Your task to perform on an android device: move a message to another label in the gmail app Image 0: 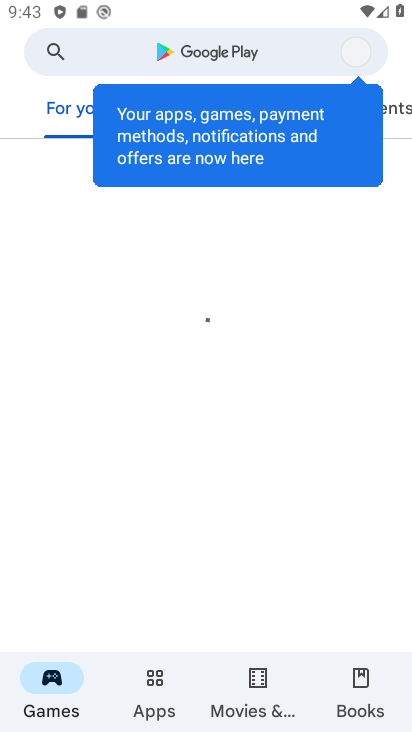
Step 0: press home button
Your task to perform on an android device: move a message to another label in the gmail app Image 1: 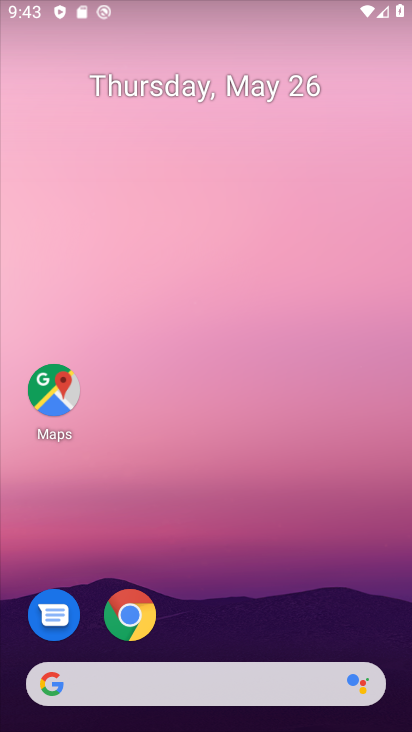
Step 1: drag from (221, 713) to (213, 220)
Your task to perform on an android device: move a message to another label in the gmail app Image 2: 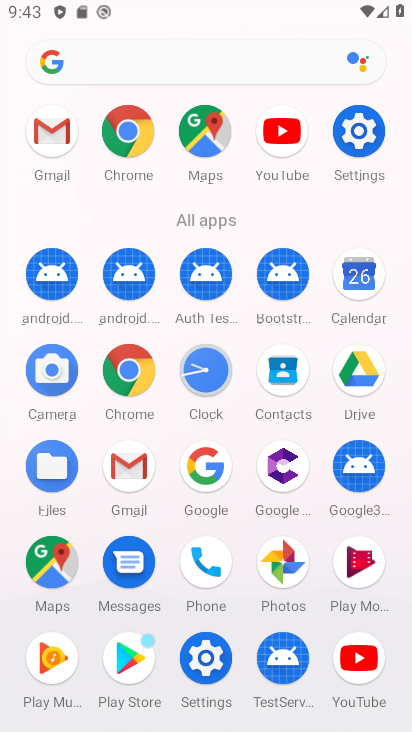
Step 2: click (64, 151)
Your task to perform on an android device: move a message to another label in the gmail app Image 3: 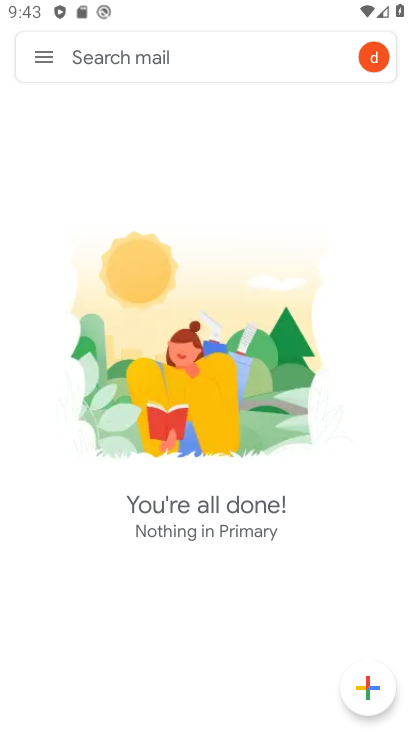
Step 3: click (46, 68)
Your task to perform on an android device: move a message to another label in the gmail app Image 4: 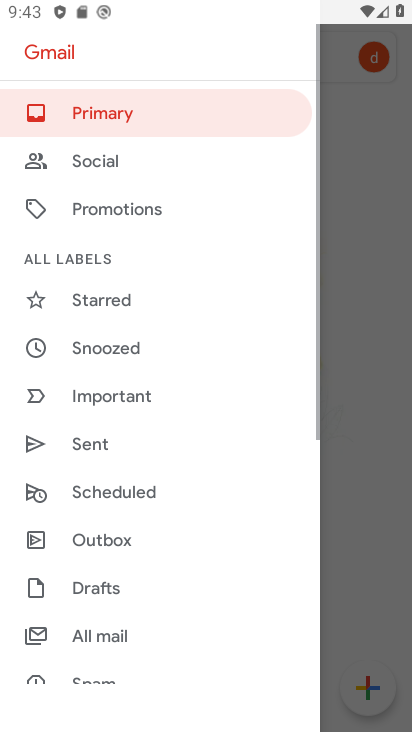
Step 4: drag from (197, 595) to (239, 226)
Your task to perform on an android device: move a message to another label in the gmail app Image 5: 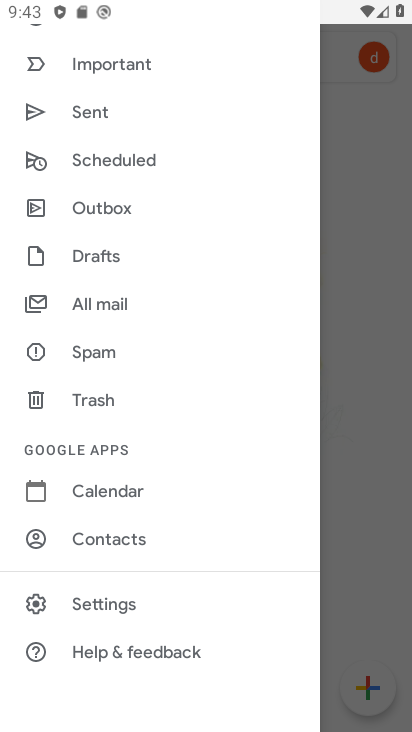
Step 5: click (144, 606)
Your task to perform on an android device: move a message to another label in the gmail app Image 6: 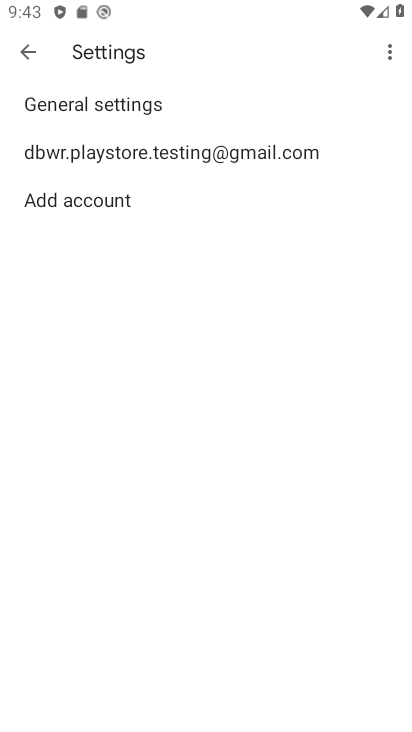
Step 6: click (178, 171)
Your task to perform on an android device: move a message to another label in the gmail app Image 7: 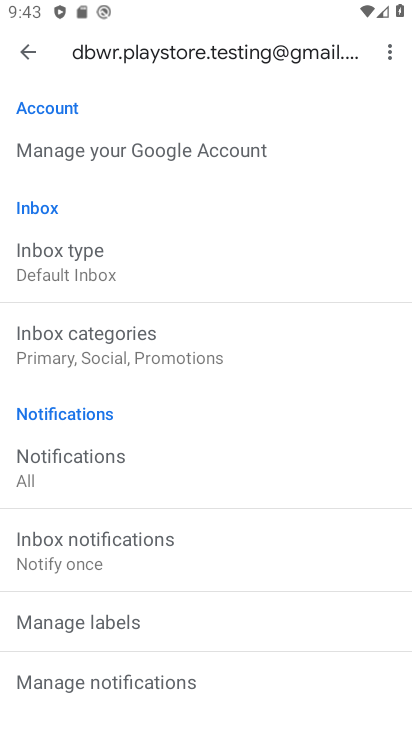
Step 7: click (152, 622)
Your task to perform on an android device: move a message to another label in the gmail app Image 8: 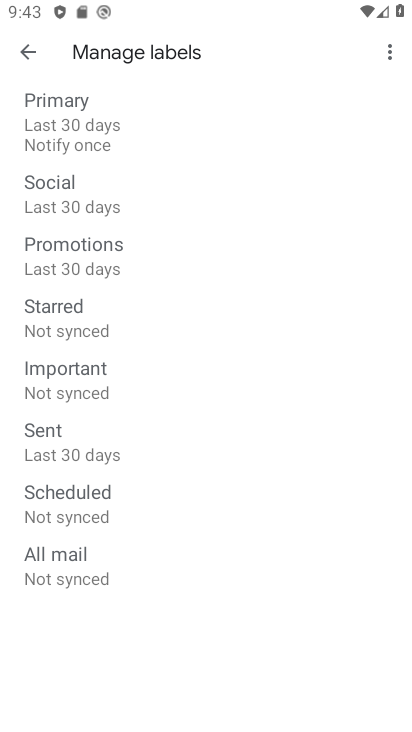
Step 8: click (119, 360)
Your task to perform on an android device: move a message to another label in the gmail app Image 9: 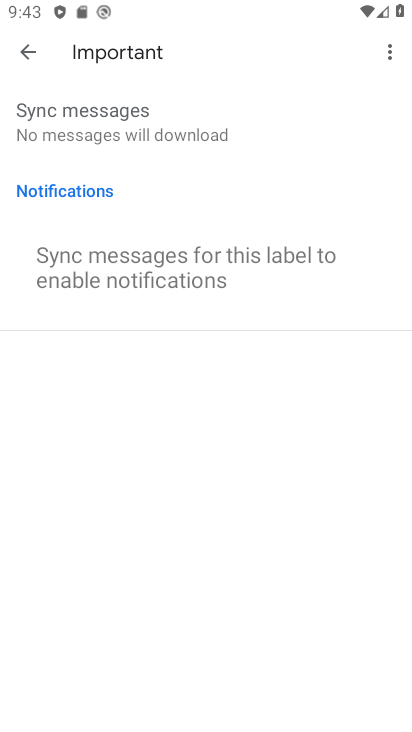
Step 9: task complete